Your task to perform on an android device: toggle pop-ups in chrome Image 0: 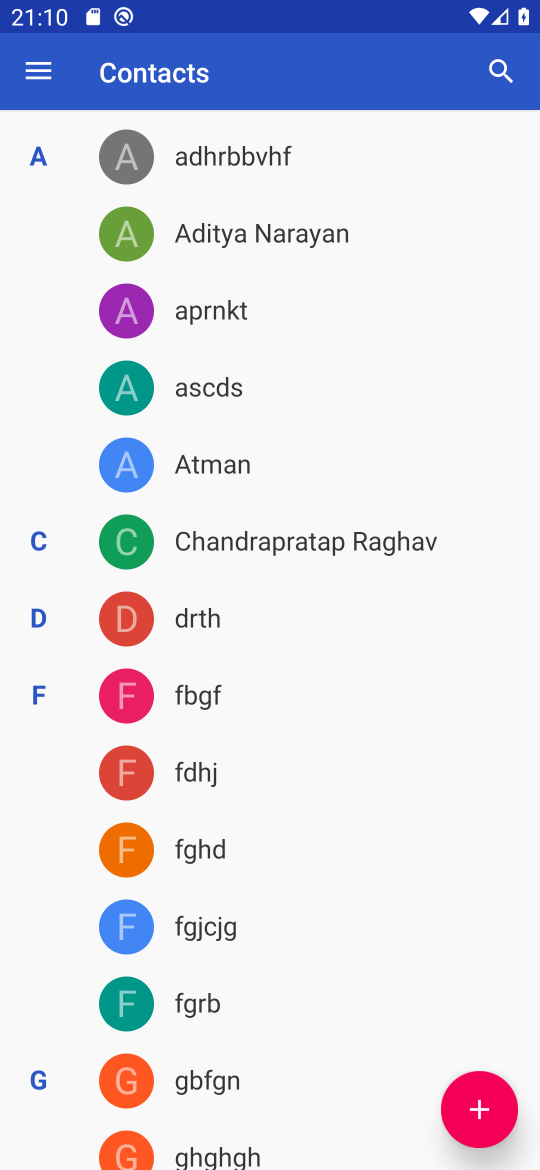
Step 0: press home button
Your task to perform on an android device: toggle pop-ups in chrome Image 1: 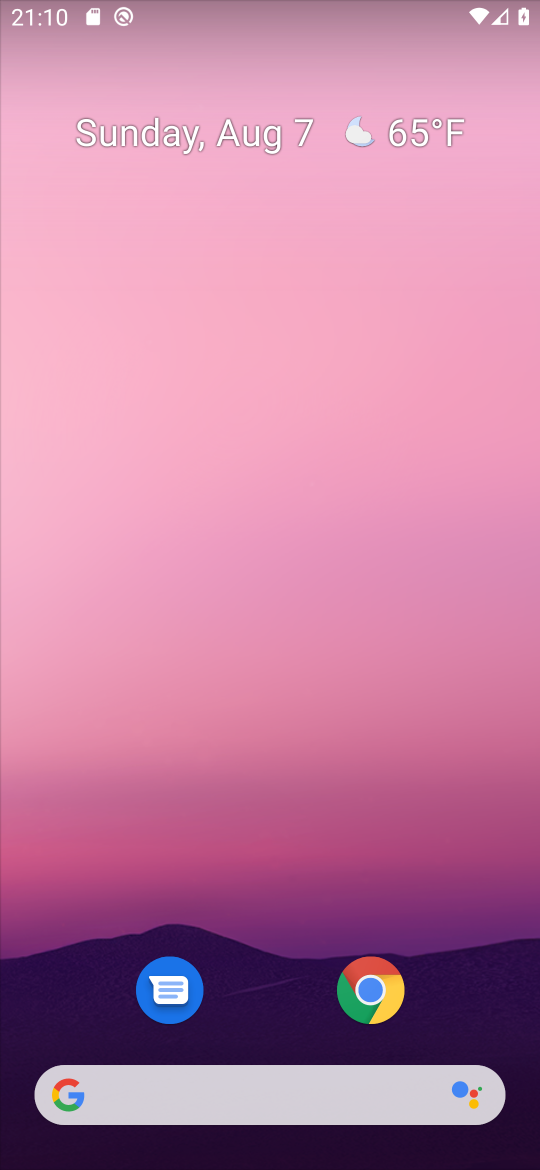
Step 1: click (365, 990)
Your task to perform on an android device: toggle pop-ups in chrome Image 2: 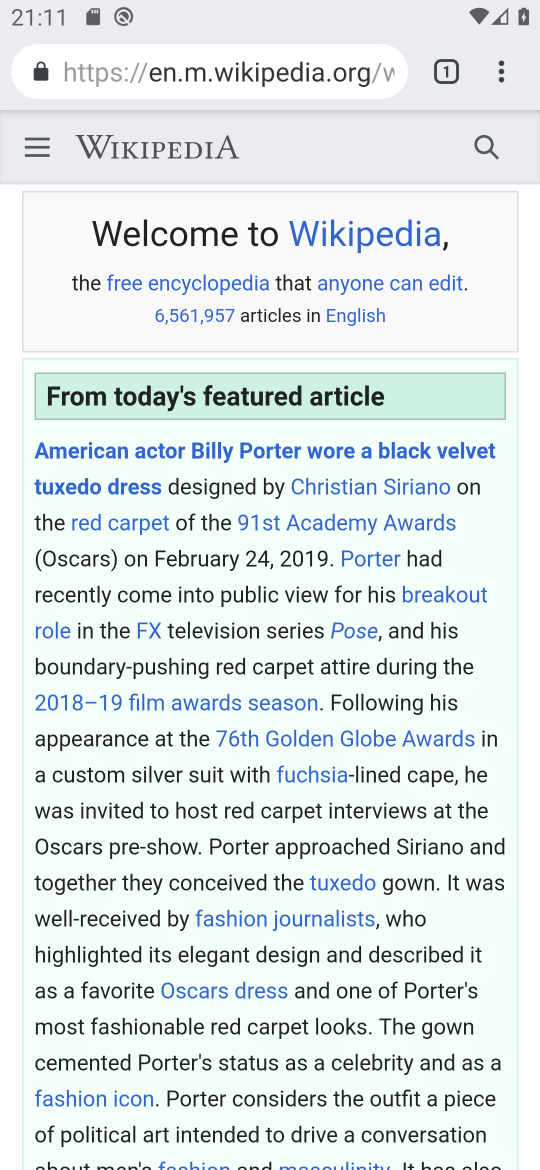
Step 2: press back button
Your task to perform on an android device: toggle pop-ups in chrome Image 3: 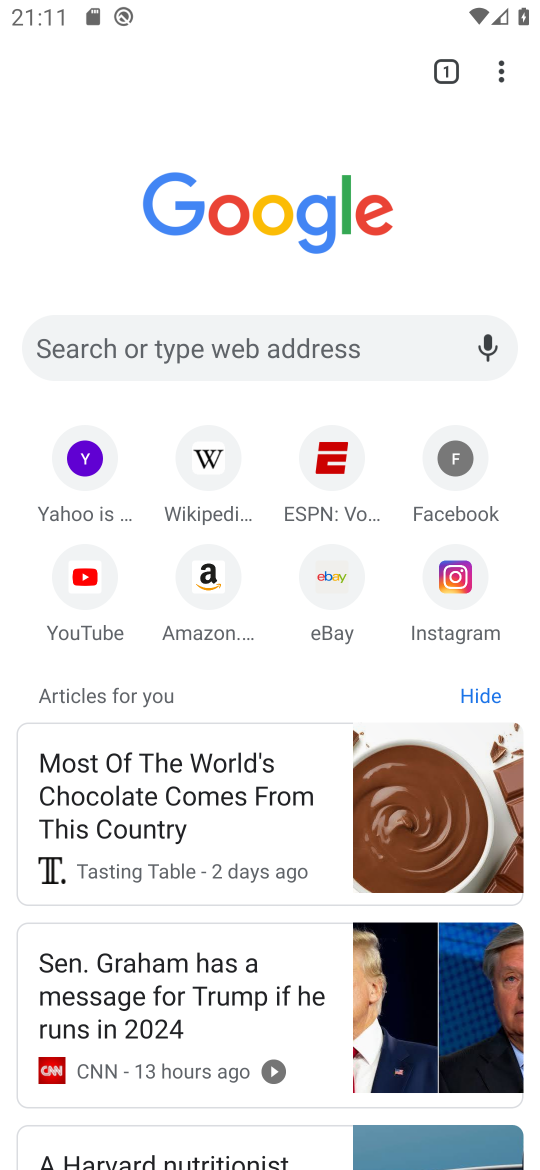
Step 3: click (497, 79)
Your task to perform on an android device: toggle pop-ups in chrome Image 4: 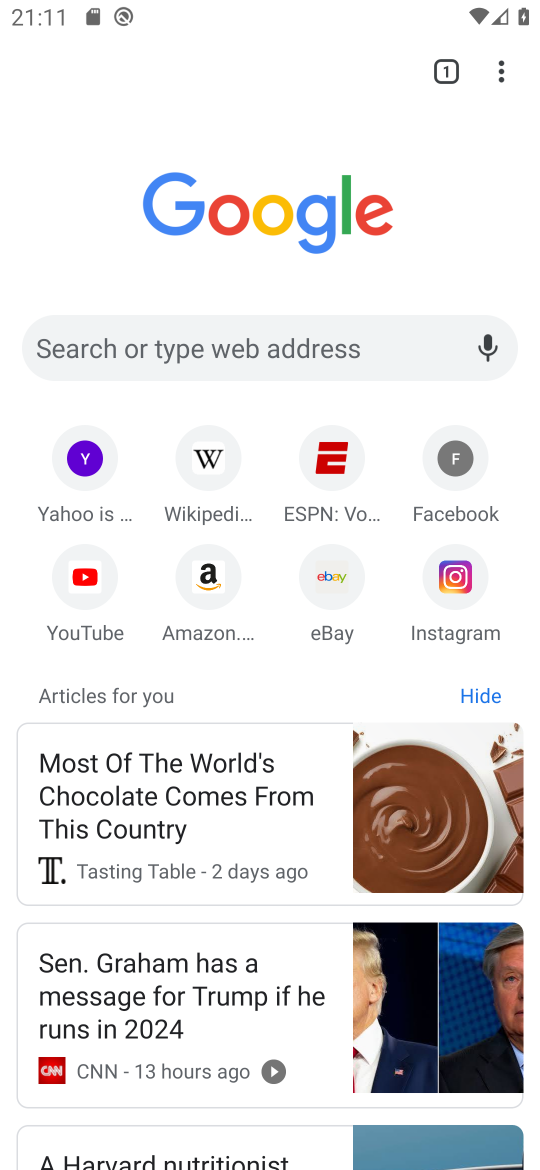
Step 4: click (497, 79)
Your task to perform on an android device: toggle pop-ups in chrome Image 5: 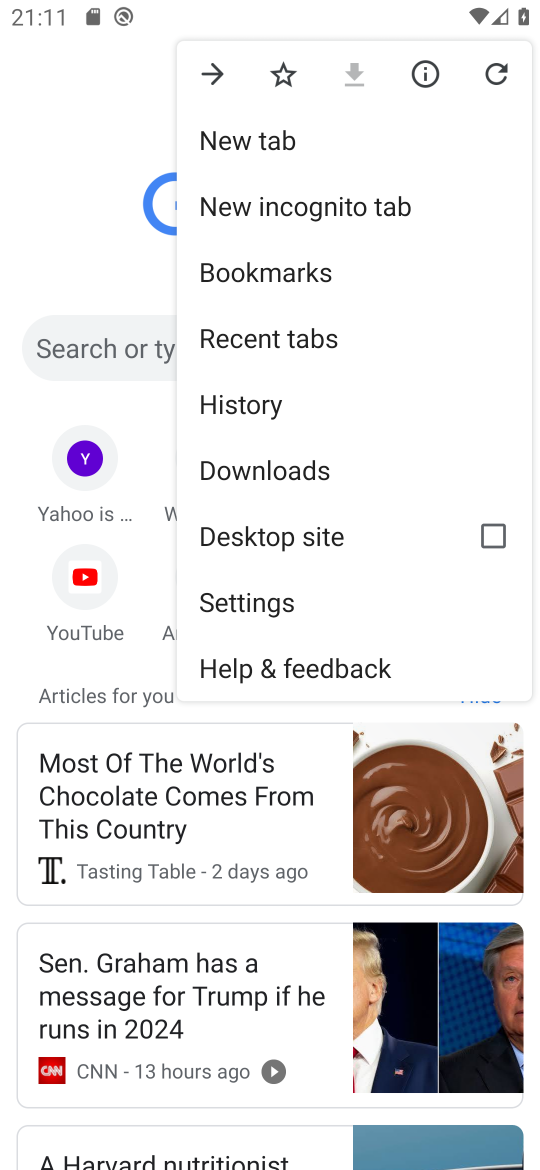
Step 5: click (299, 596)
Your task to perform on an android device: toggle pop-ups in chrome Image 6: 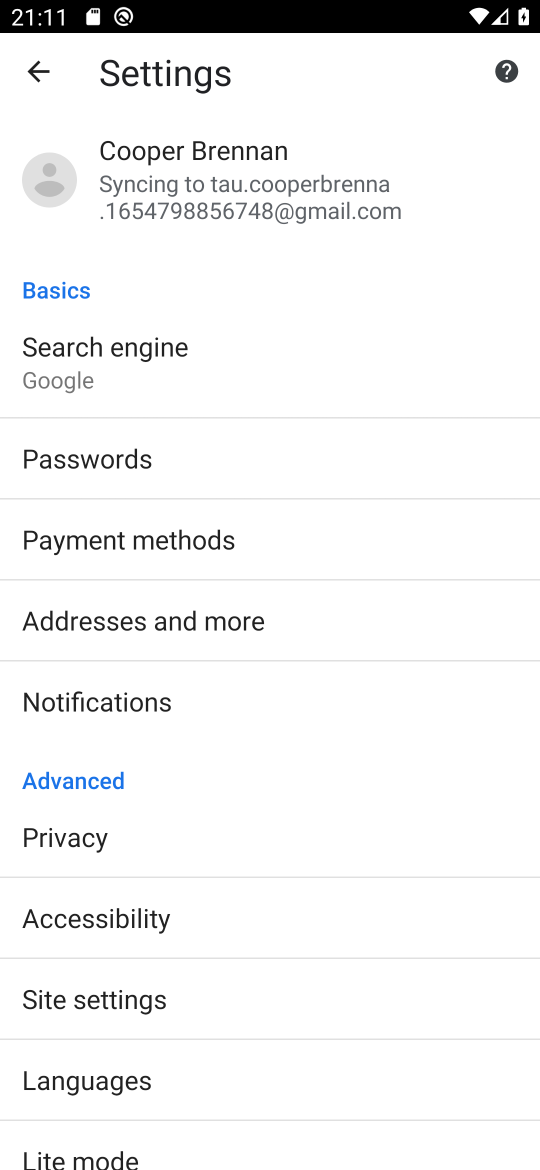
Step 6: click (222, 1004)
Your task to perform on an android device: toggle pop-ups in chrome Image 7: 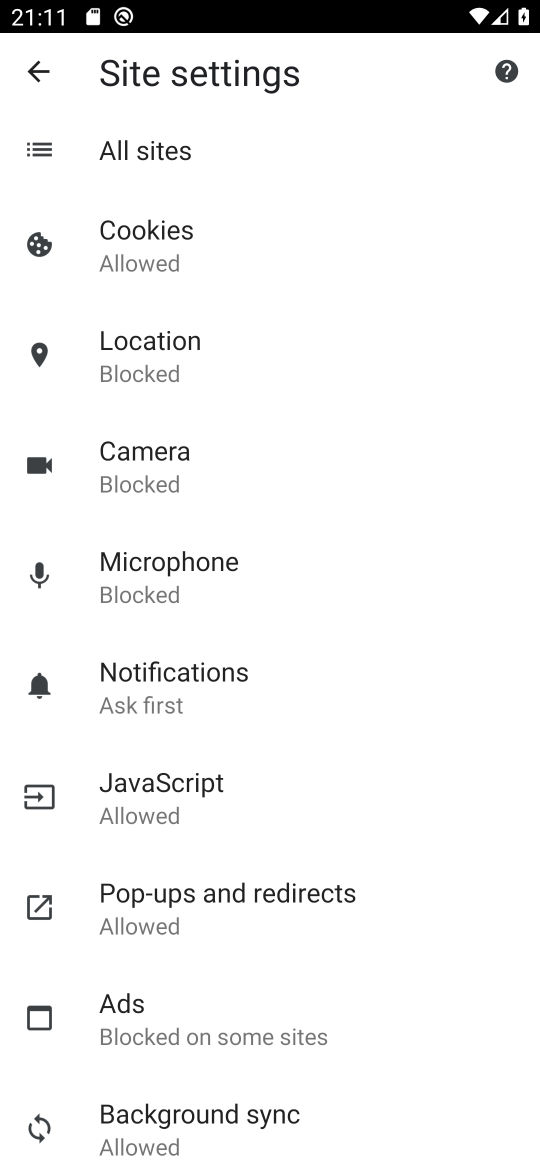
Step 7: drag from (246, 276) to (231, 677)
Your task to perform on an android device: toggle pop-ups in chrome Image 8: 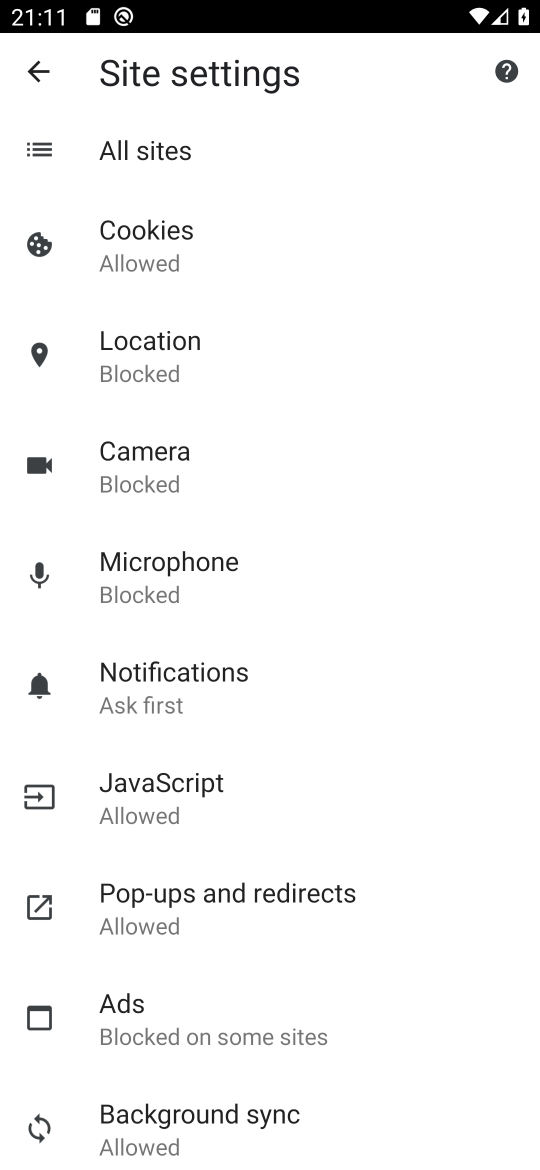
Step 8: click (286, 900)
Your task to perform on an android device: toggle pop-ups in chrome Image 9: 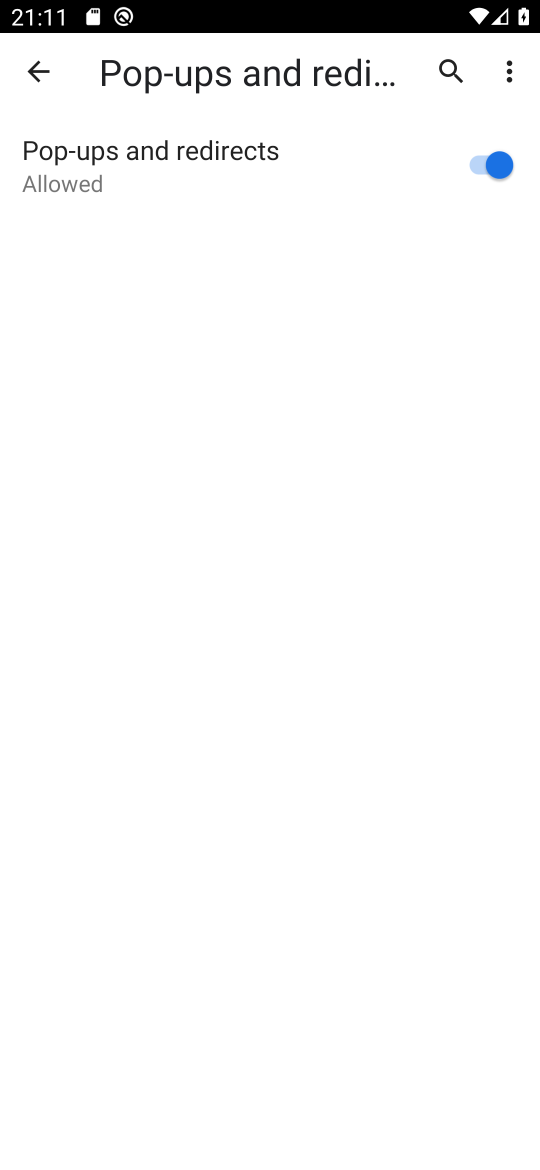
Step 9: click (501, 170)
Your task to perform on an android device: toggle pop-ups in chrome Image 10: 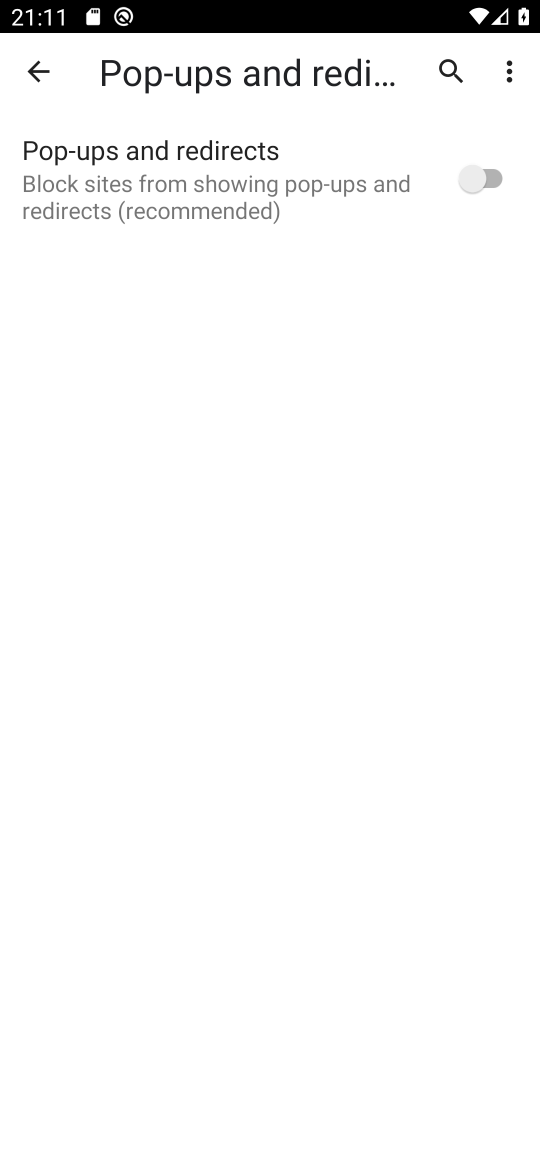
Step 10: task complete